Your task to perform on an android device: move a message to another label in the gmail app Image 0: 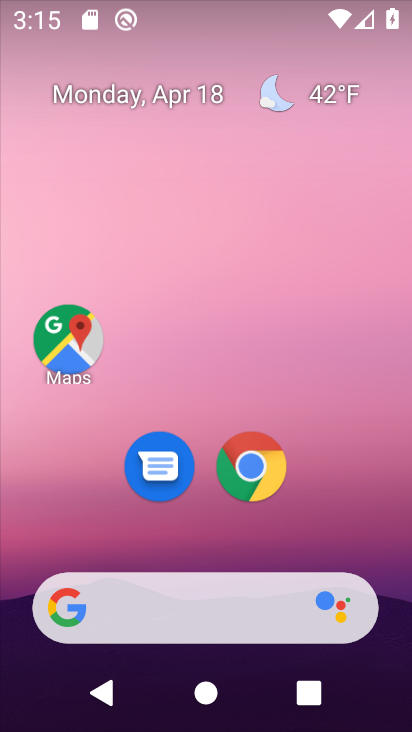
Step 0: drag from (354, 483) to (388, 158)
Your task to perform on an android device: move a message to another label in the gmail app Image 1: 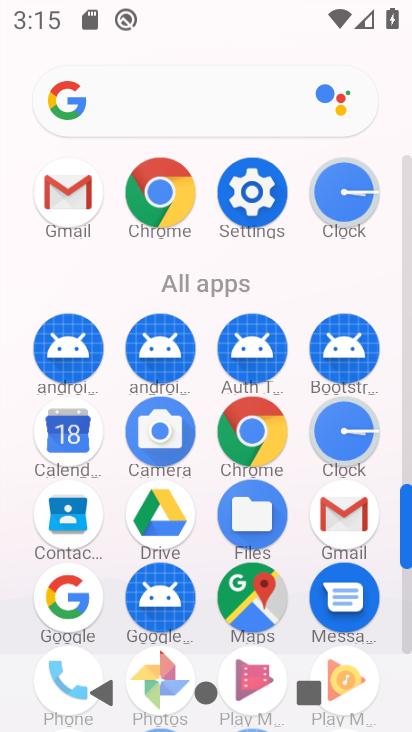
Step 1: click (365, 524)
Your task to perform on an android device: move a message to another label in the gmail app Image 2: 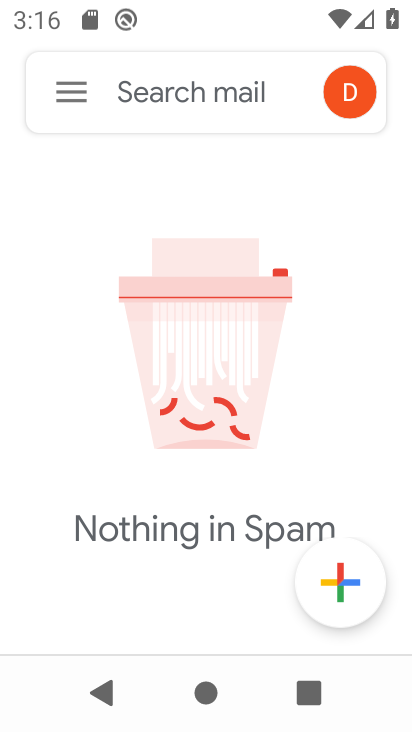
Step 2: click (78, 94)
Your task to perform on an android device: move a message to another label in the gmail app Image 3: 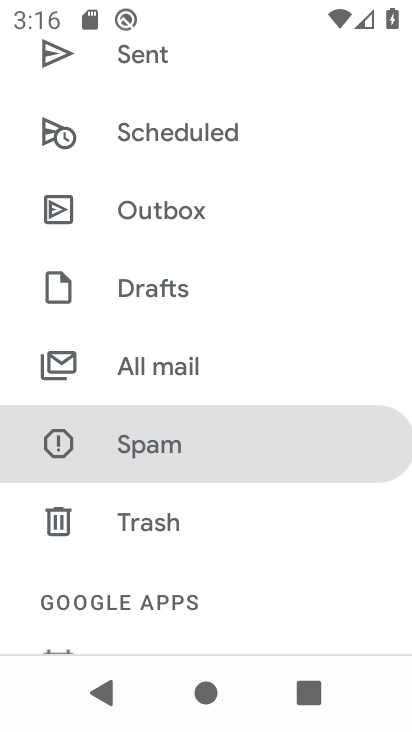
Step 3: drag from (213, 187) to (234, 586)
Your task to perform on an android device: move a message to another label in the gmail app Image 4: 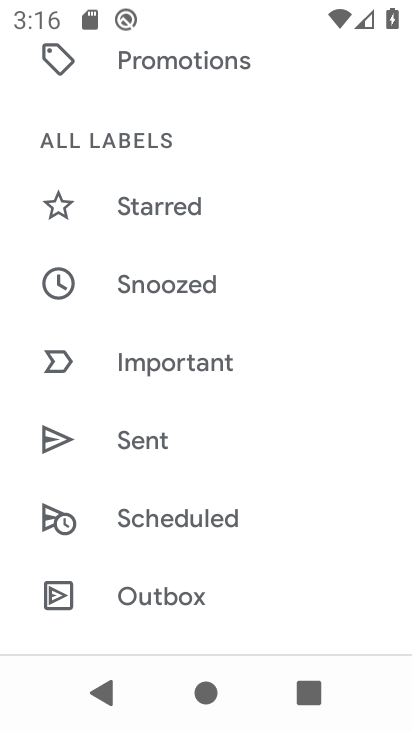
Step 4: drag from (249, 234) to (219, 529)
Your task to perform on an android device: move a message to another label in the gmail app Image 5: 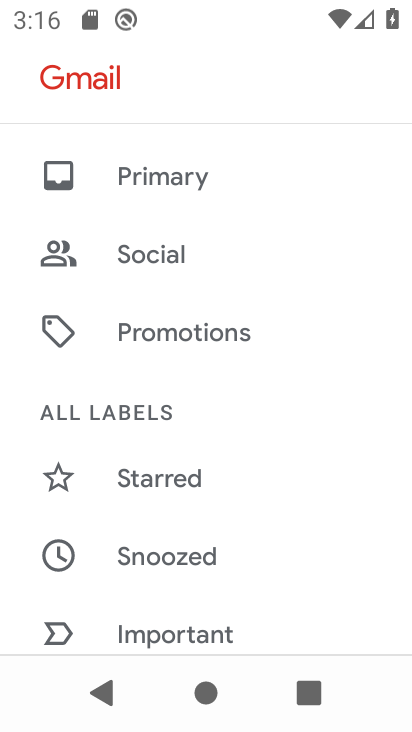
Step 5: click (217, 183)
Your task to perform on an android device: move a message to another label in the gmail app Image 6: 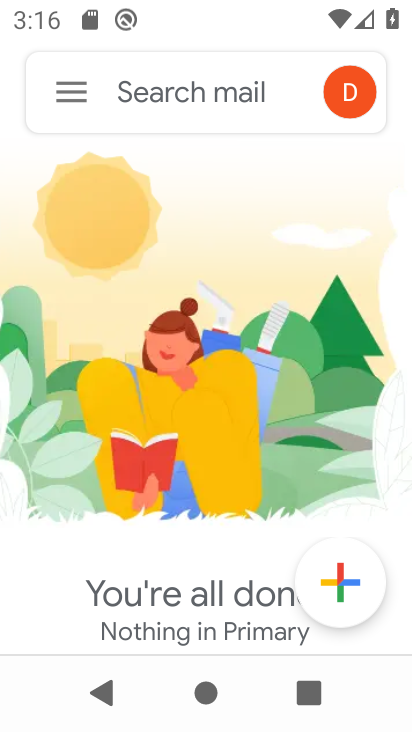
Step 6: task complete